Your task to perform on an android device: Go to Google maps Image 0: 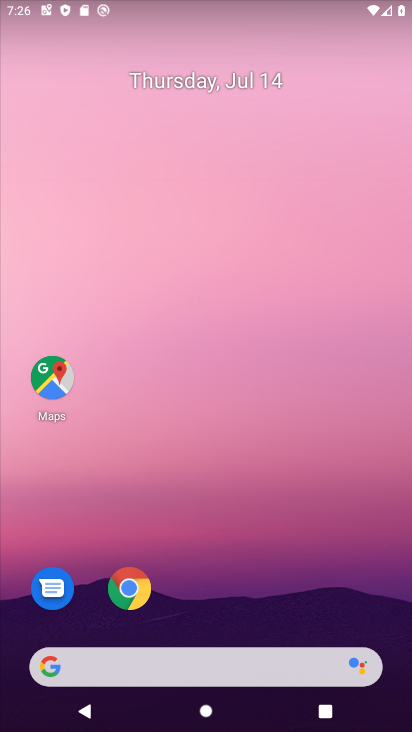
Step 0: drag from (393, 623) to (281, 49)
Your task to perform on an android device: Go to Google maps Image 1: 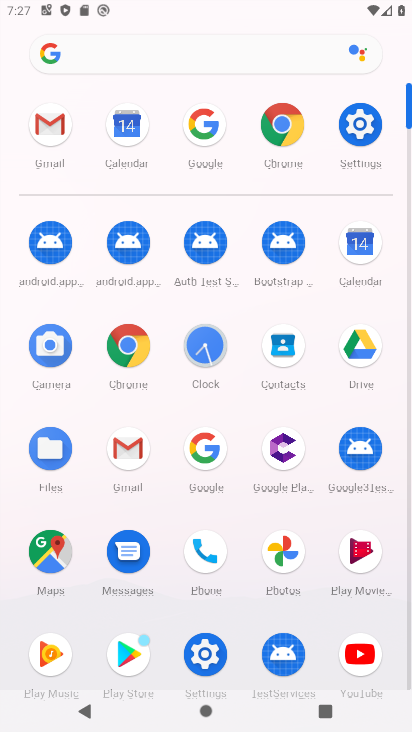
Step 1: click (63, 535)
Your task to perform on an android device: Go to Google maps Image 2: 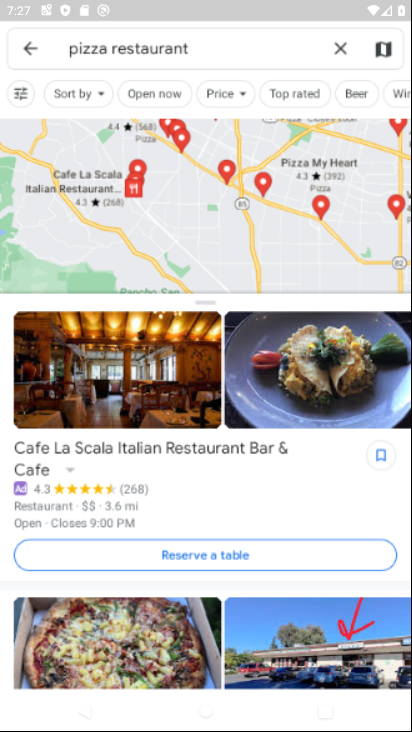
Step 2: click (344, 48)
Your task to perform on an android device: Go to Google maps Image 3: 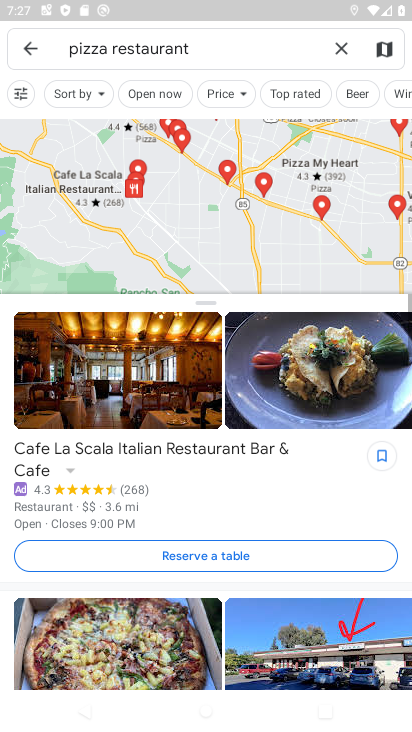
Step 3: click (341, 46)
Your task to perform on an android device: Go to Google maps Image 4: 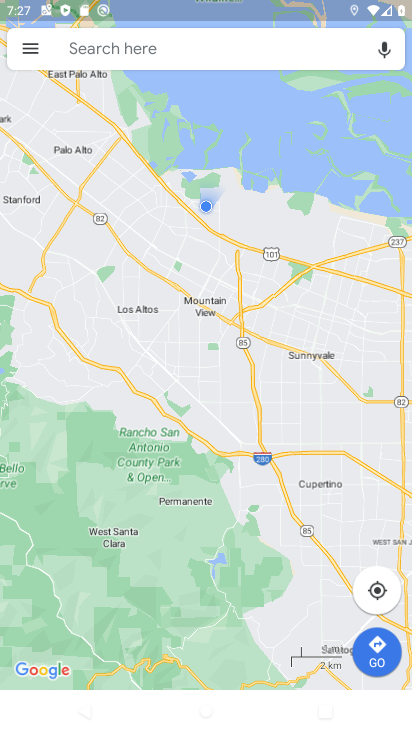
Step 4: task complete